Your task to perform on an android device: toggle translation in the chrome app Image 0: 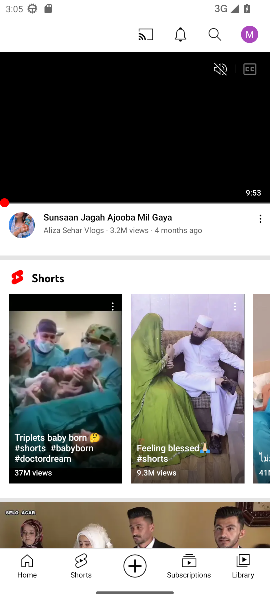
Step 0: press home button
Your task to perform on an android device: toggle translation in the chrome app Image 1: 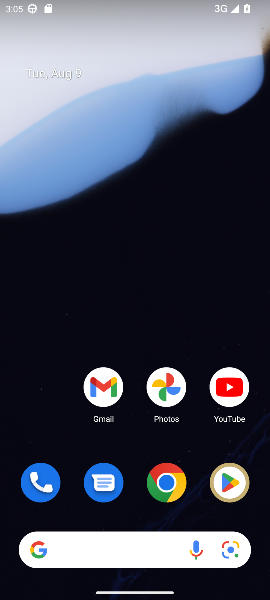
Step 1: click (161, 481)
Your task to perform on an android device: toggle translation in the chrome app Image 2: 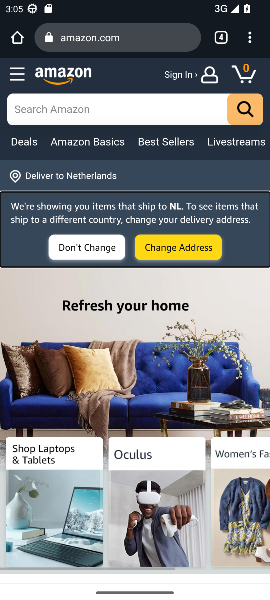
Step 2: click (246, 41)
Your task to perform on an android device: toggle translation in the chrome app Image 3: 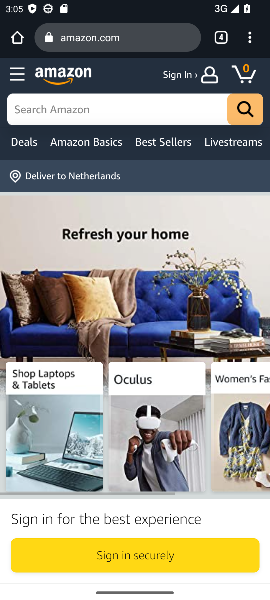
Step 3: click (247, 44)
Your task to perform on an android device: toggle translation in the chrome app Image 4: 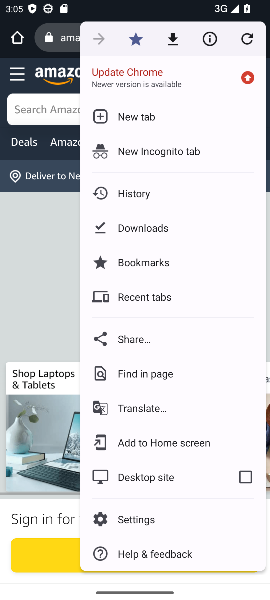
Step 4: click (169, 522)
Your task to perform on an android device: toggle translation in the chrome app Image 5: 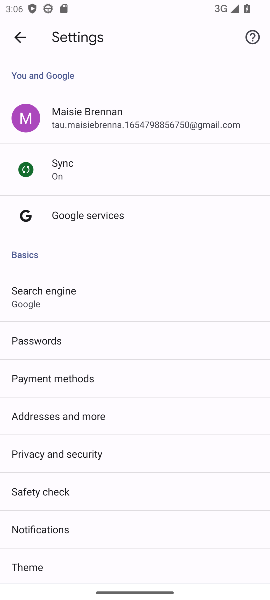
Step 5: drag from (116, 504) to (121, 255)
Your task to perform on an android device: toggle translation in the chrome app Image 6: 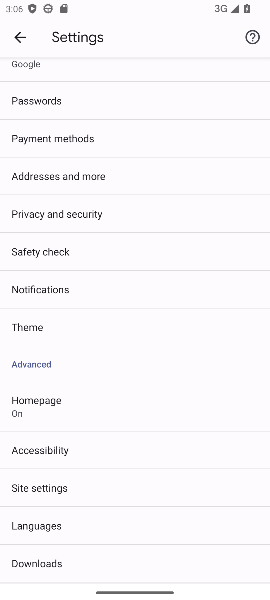
Step 6: click (84, 534)
Your task to perform on an android device: toggle translation in the chrome app Image 7: 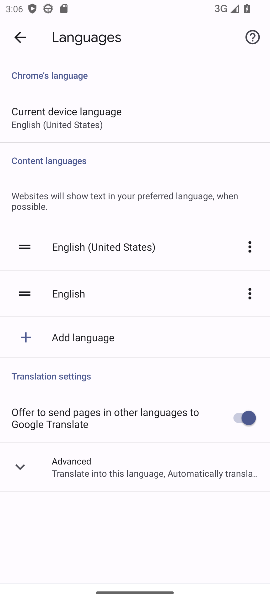
Step 7: click (230, 416)
Your task to perform on an android device: toggle translation in the chrome app Image 8: 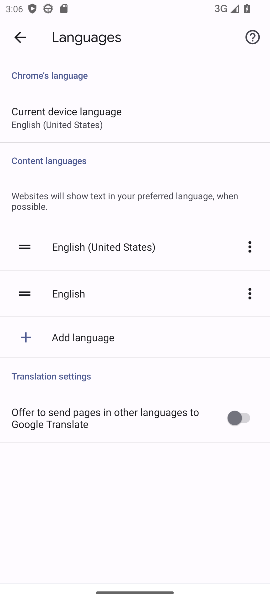
Step 8: task complete